Your task to perform on an android device: open sync settings in chrome Image 0: 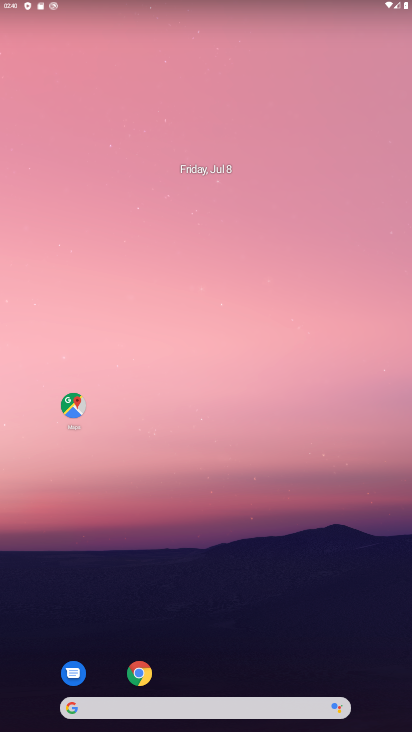
Step 0: drag from (213, 649) to (212, 19)
Your task to perform on an android device: open sync settings in chrome Image 1: 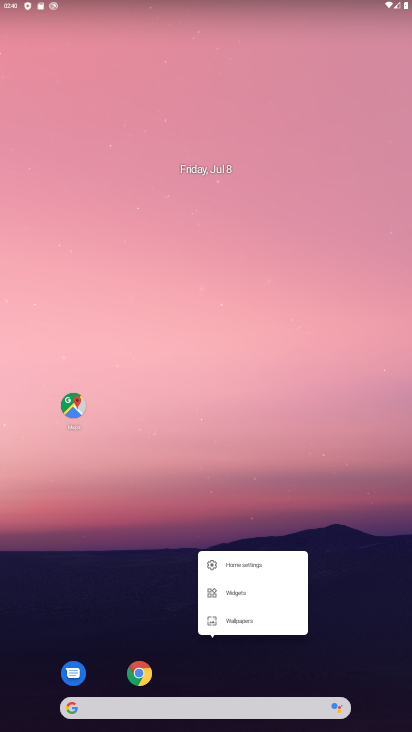
Step 1: click (283, 465)
Your task to perform on an android device: open sync settings in chrome Image 2: 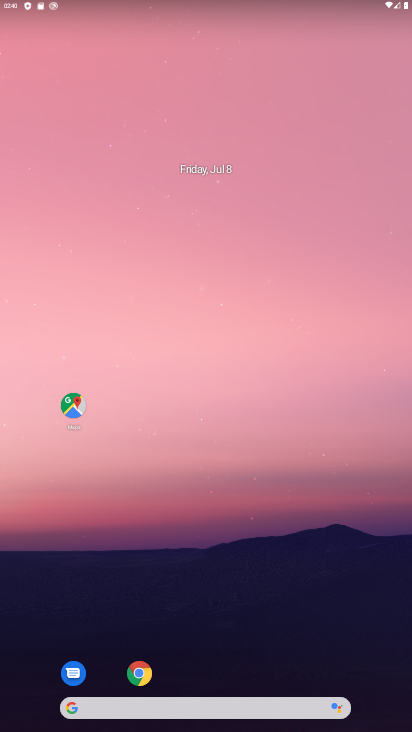
Step 2: drag from (199, 667) to (136, 18)
Your task to perform on an android device: open sync settings in chrome Image 3: 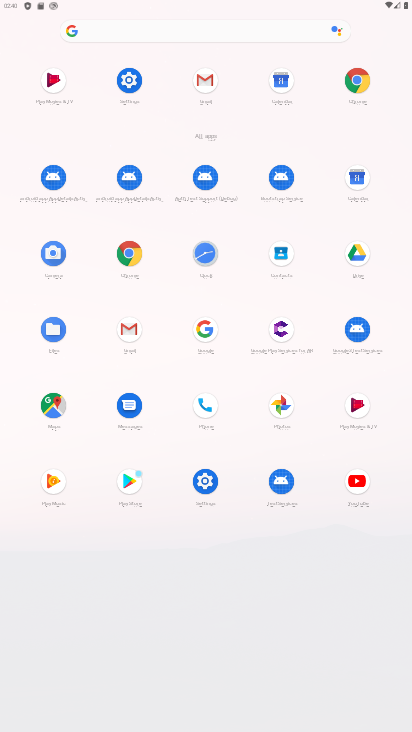
Step 3: click (138, 251)
Your task to perform on an android device: open sync settings in chrome Image 4: 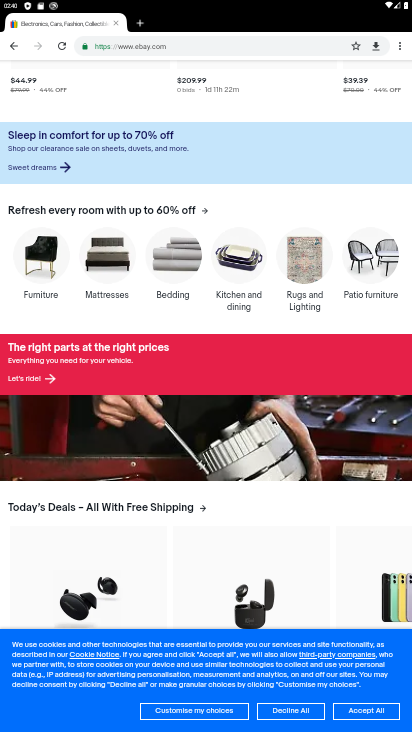
Step 4: press home button
Your task to perform on an android device: open sync settings in chrome Image 5: 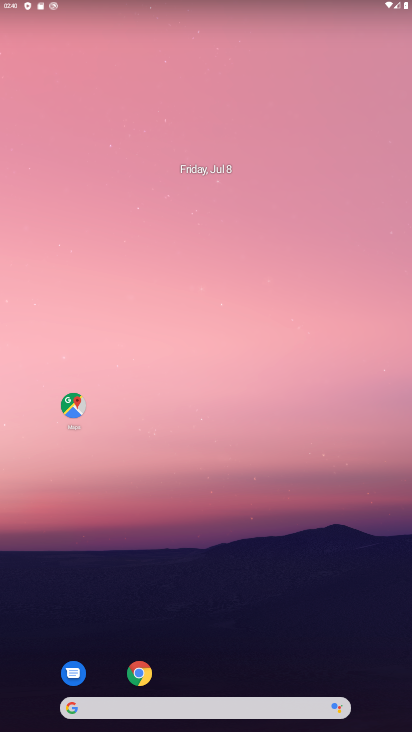
Step 5: click (144, 666)
Your task to perform on an android device: open sync settings in chrome Image 6: 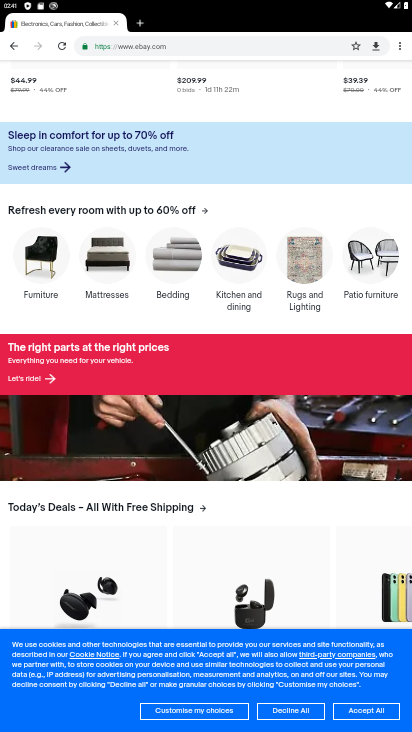
Step 6: drag from (401, 46) to (402, 96)
Your task to perform on an android device: open sync settings in chrome Image 7: 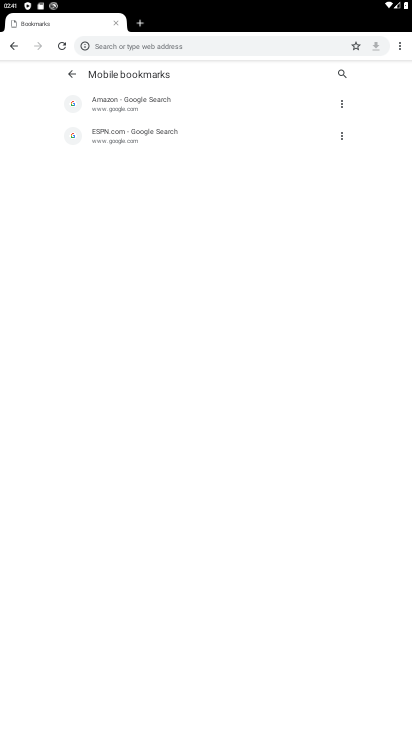
Step 7: click (404, 44)
Your task to perform on an android device: open sync settings in chrome Image 8: 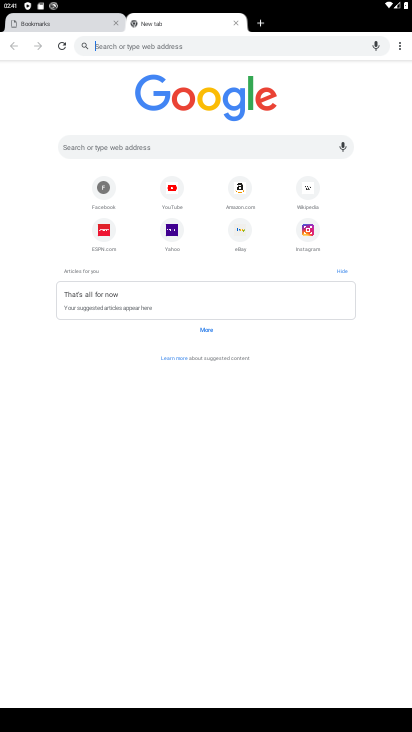
Step 8: drag from (403, 45) to (297, 208)
Your task to perform on an android device: open sync settings in chrome Image 9: 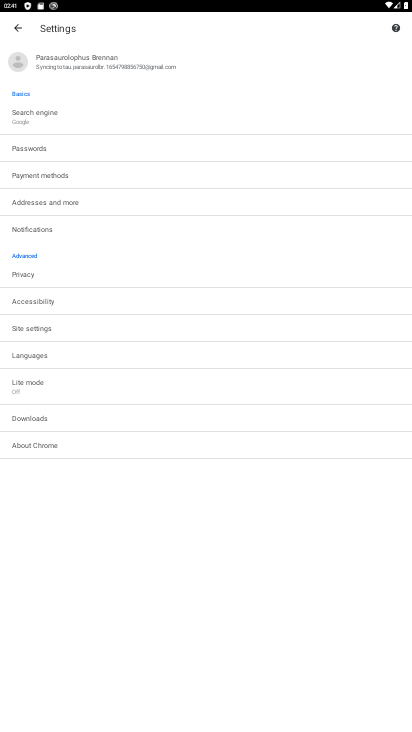
Step 9: click (28, 63)
Your task to perform on an android device: open sync settings in chrome Image 10: 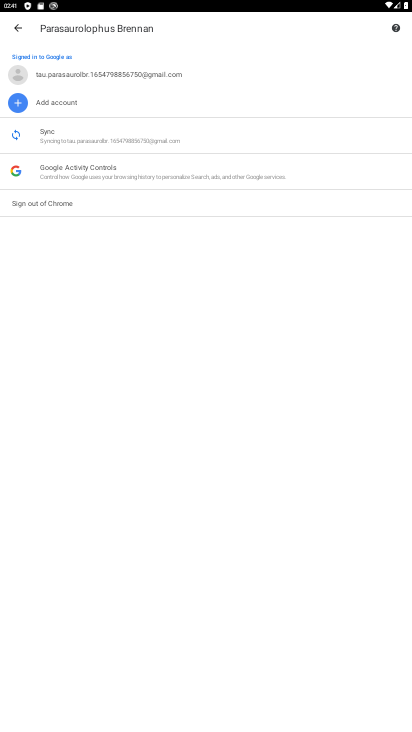
Step 10: click (51, 131)
Your task to perform on an android device: open sync settings in chrome Image 11: 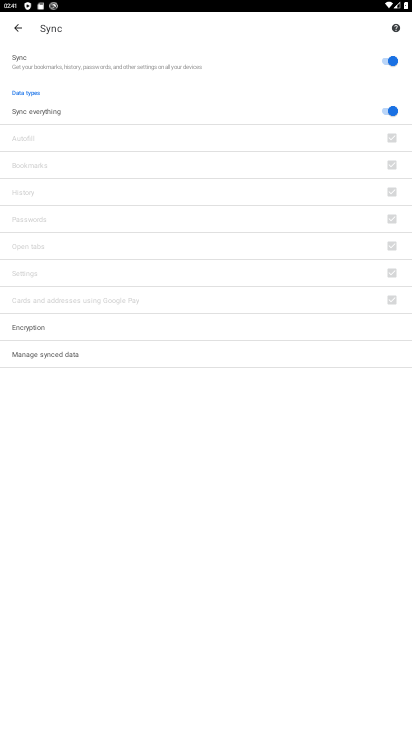
Step 11: task complete